Your task to perform on an android device: What's the weather going to be tomorrow? Image 0: 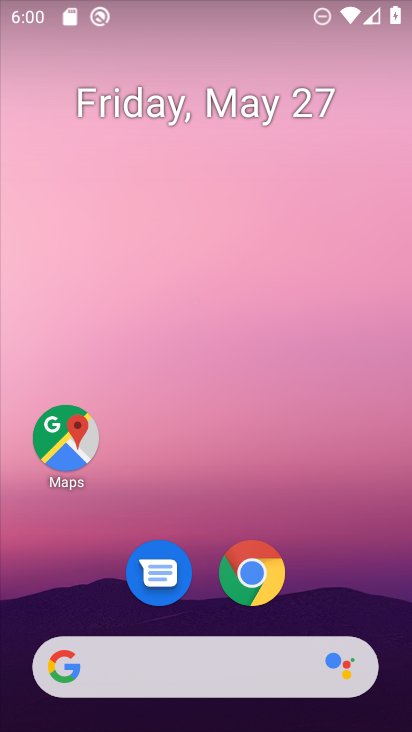
Step 0: drag from (208, 612) to (228, 0)
Your task to perform on an android device: What's the weather going to be tomorrow? Image 1: 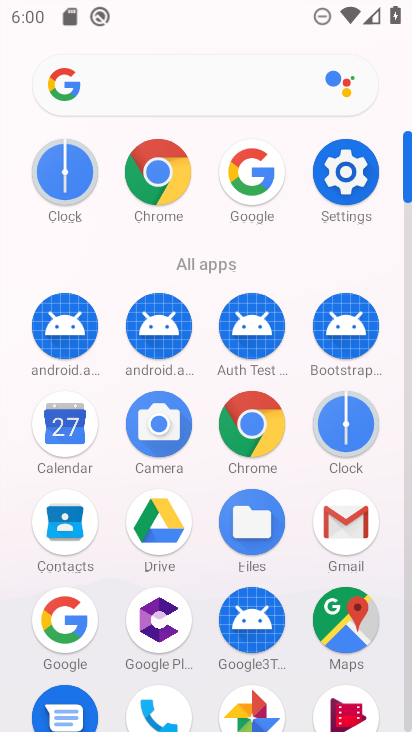
Step 1: click (344, 419)
Your task to perform on an android device: What's the weather going to be tomorrow? Image 2: 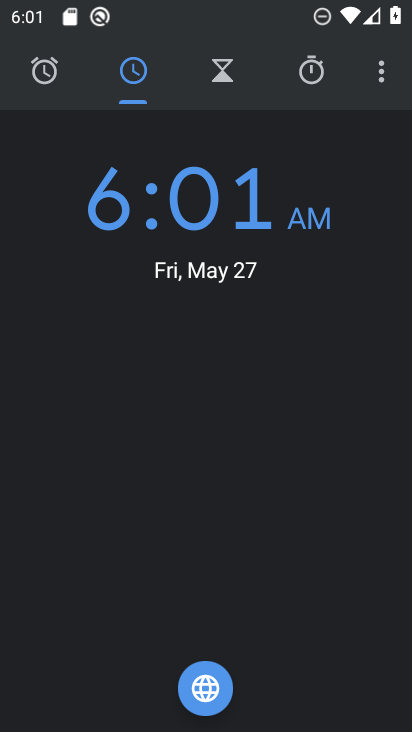
Step 2: press home button
Your task to perform on an android device: What's the weather going to be tomorrow? Image 3: 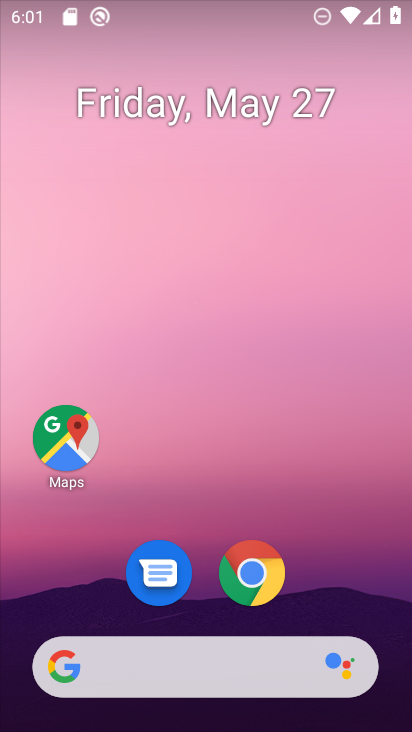
Step 3: drag from (3, 293) to (360, 313)
Your task to perform on an android device: What's the weather going to be tomorrow? Image 4: 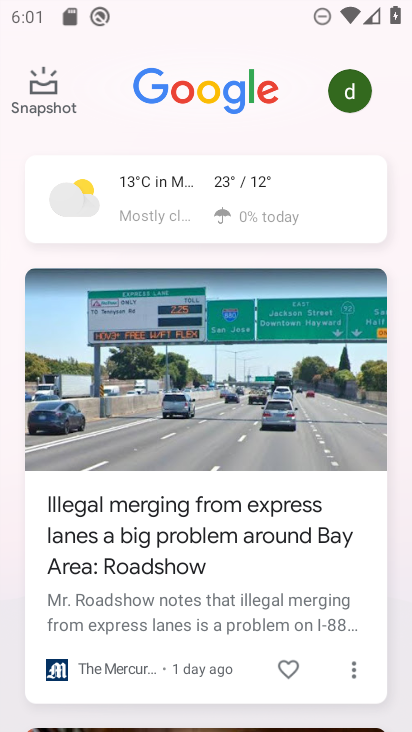
Step 4: click (246, 191)
Your task to perform on an android device: What's the weather going to be tomorrow? Image 5: 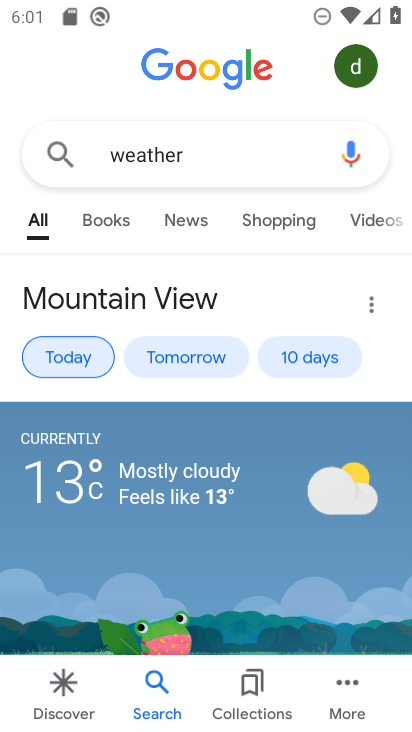
Step 5: click (178, 359)
Your task to perform on an android device: What's the weather going to be tomorrow? Image 6: 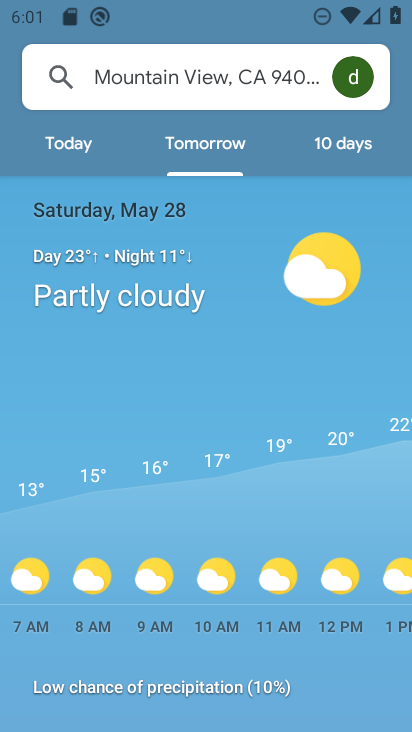
Step 6: task complete